Your task to perform on an android device: Search for pizza restaurants on Maps Image 0: 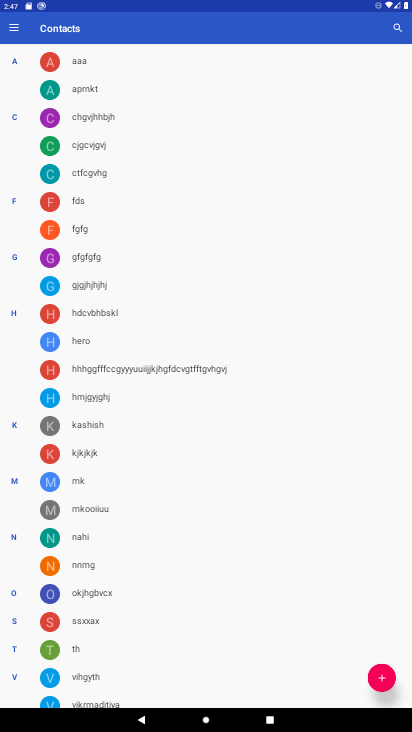
Step 0: press home button
Your task to perform on an android device: Search for pizza restaurants on Maps Image 1: 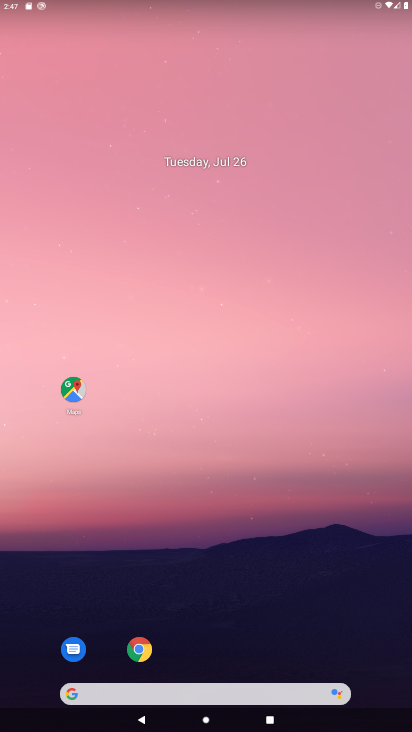
Step 1: click (65, 395)
Your task to perform on an android device: Search for pizza restaurants on Maps Image 2: 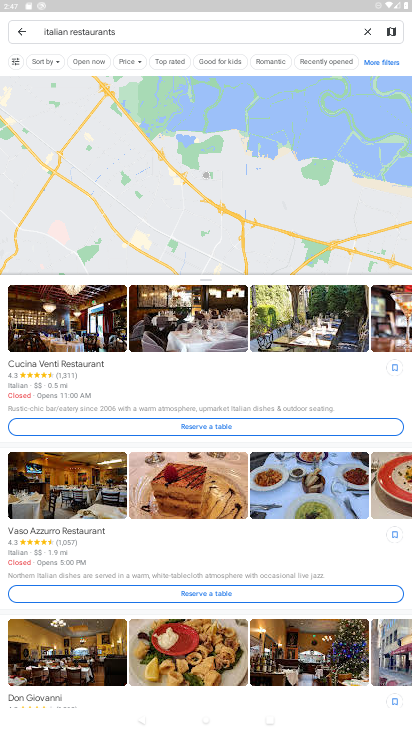
Step 2: click (146, 37)
Your task to perform on an android device: Search for pizza restaurants on Maps Image 3: 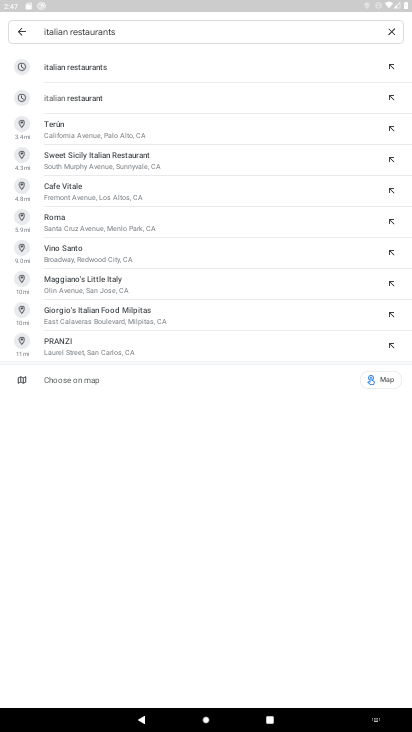
Step 3: click (391, 31)
Your task to perform on an android device: Search for pizza restaurants on Maps Image 4: 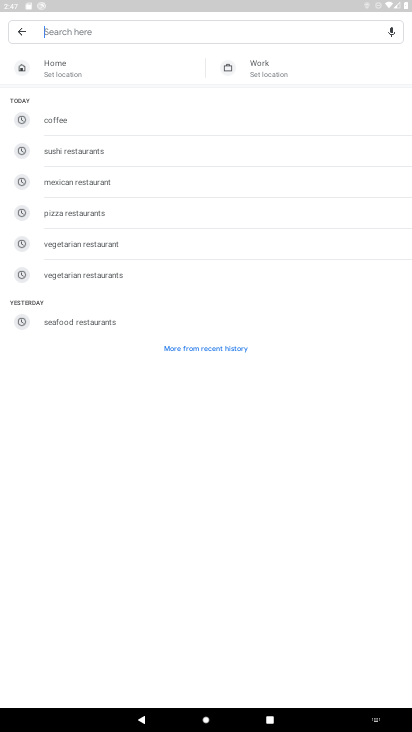
Step 4: type "pizza restaurants"
Your task to perform on an android device: Search for pizza restaurants on Maps Image 5: 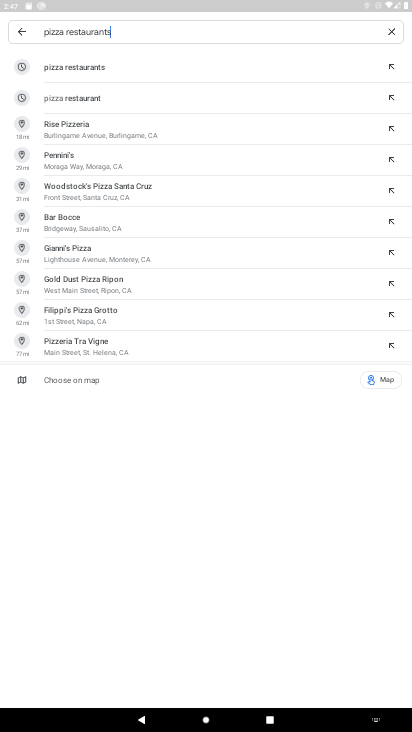
Step 5: click (106, 61)
Your task to perform on an android device: Search for pizza restaurants on Maps Image 6: 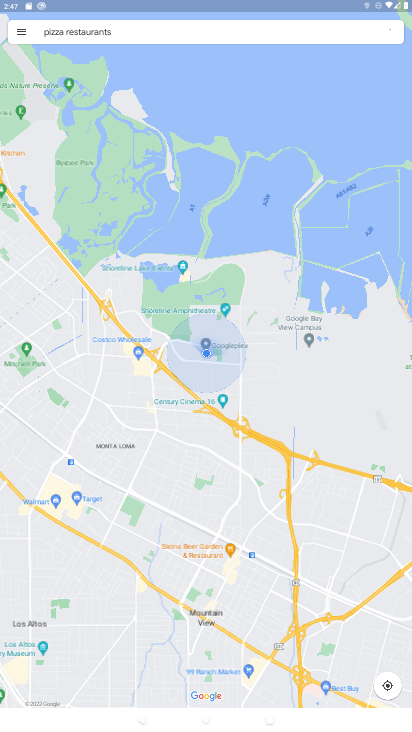
Step 6: task complete